Your task to perform on an android device: open sync settings in chrome Image 0: 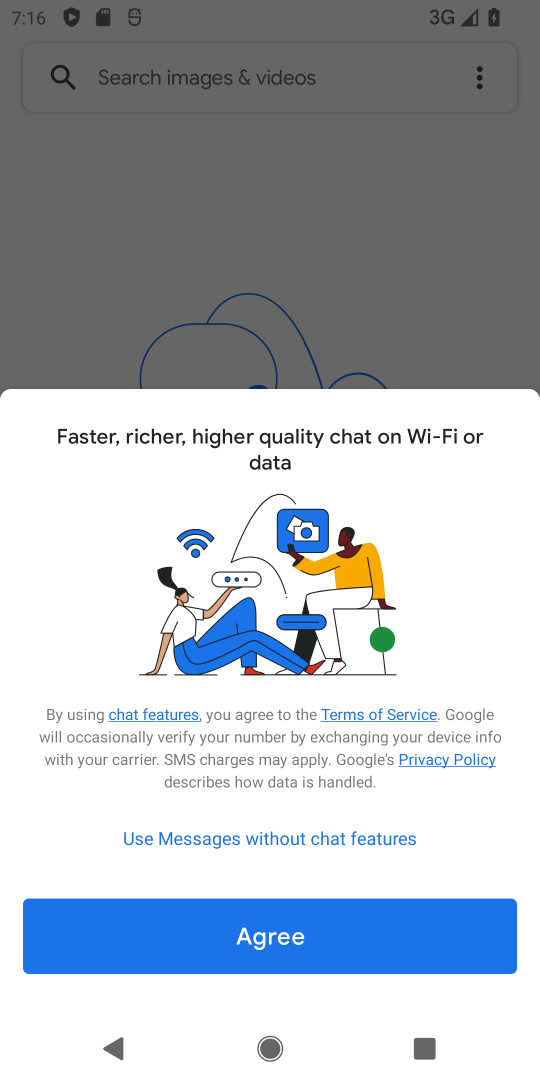
Step 0: press back button
Your task to perform on an android device: open sync settings in chrome Image 1: 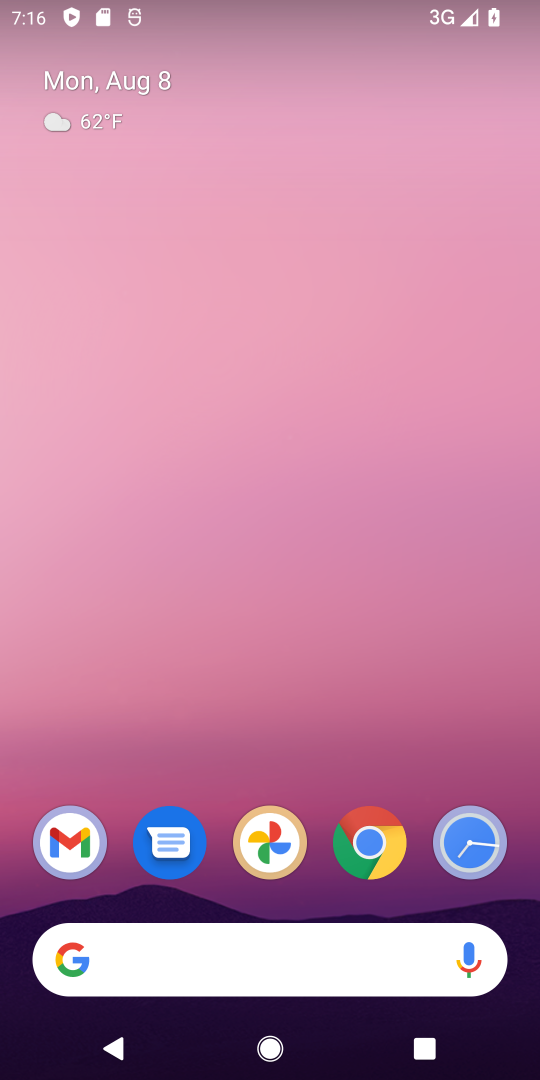
Step 1: click (393, 838)
Your task to perform on an android device: open sync settings in chrome Image 2: 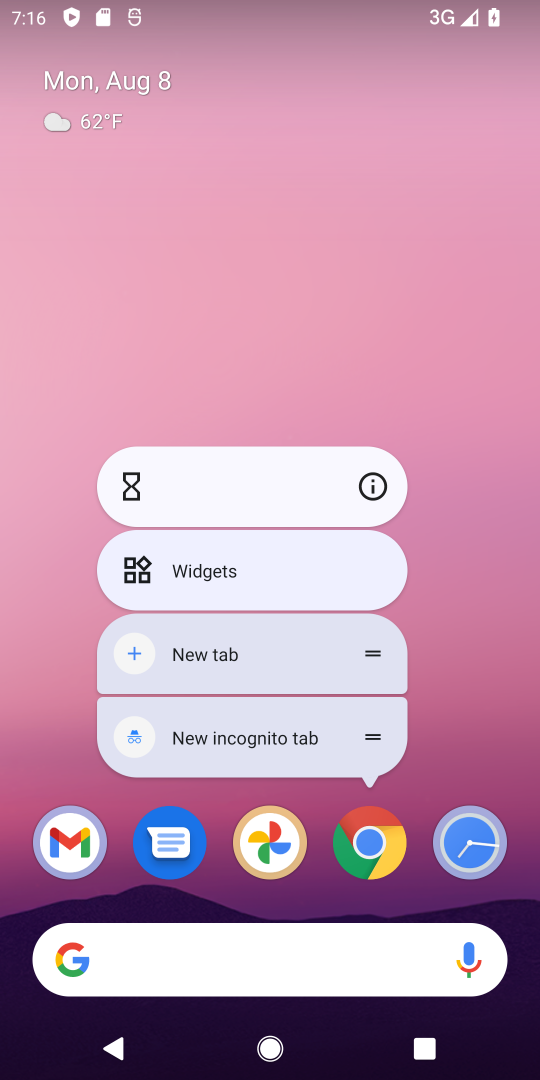
Step 2: click (384, 847)
Your task to perform on an android device: open sync settings in chrome Image 3: 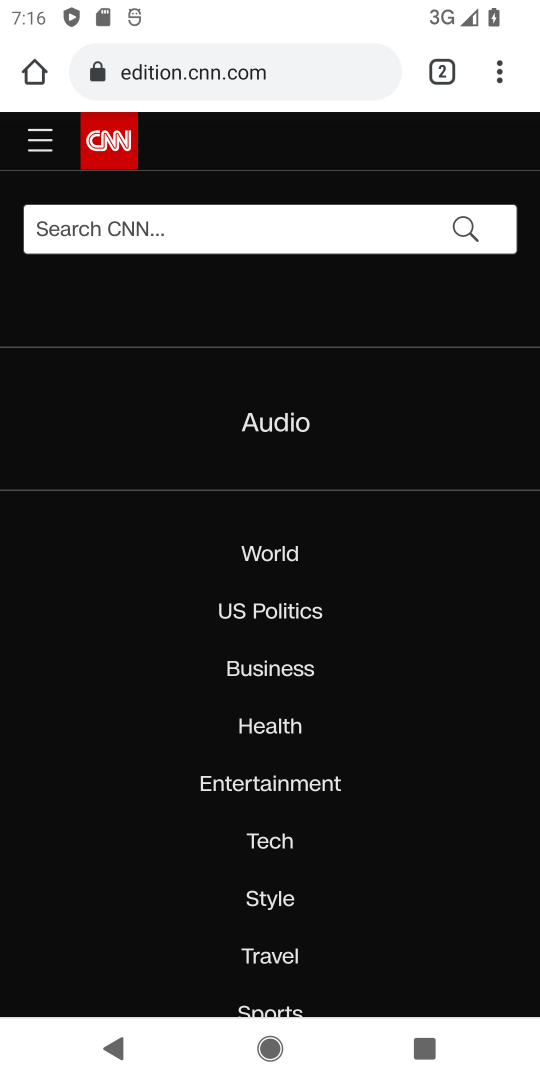
Step 3: click (486, 66)
Your task to perform on an android device: open sync settings in chrome Image 4: 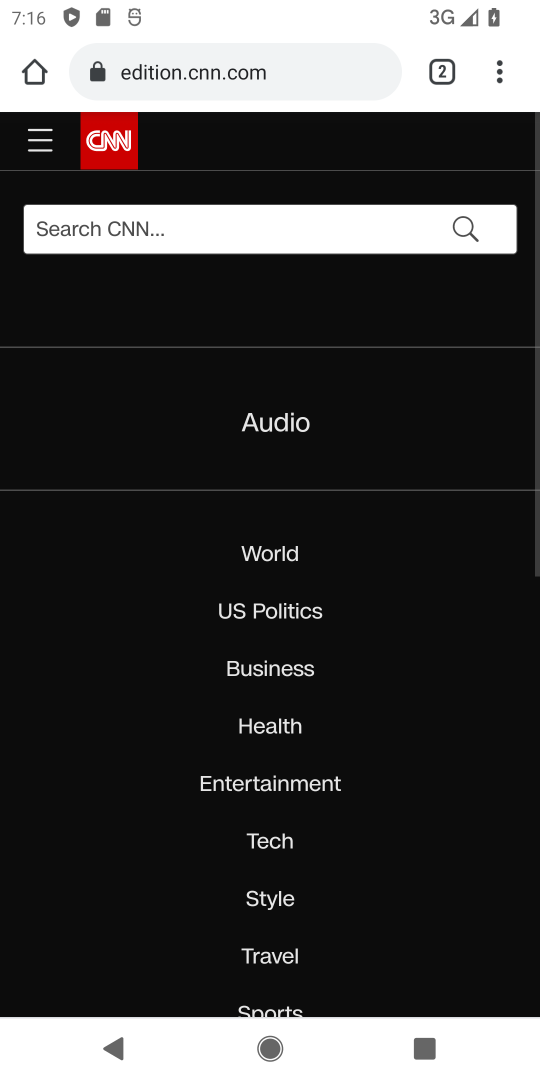
Step 4: drag from (469, 70) to (451, 331)
Your task to perform on an android device: open sync settings in chrome Image 5: 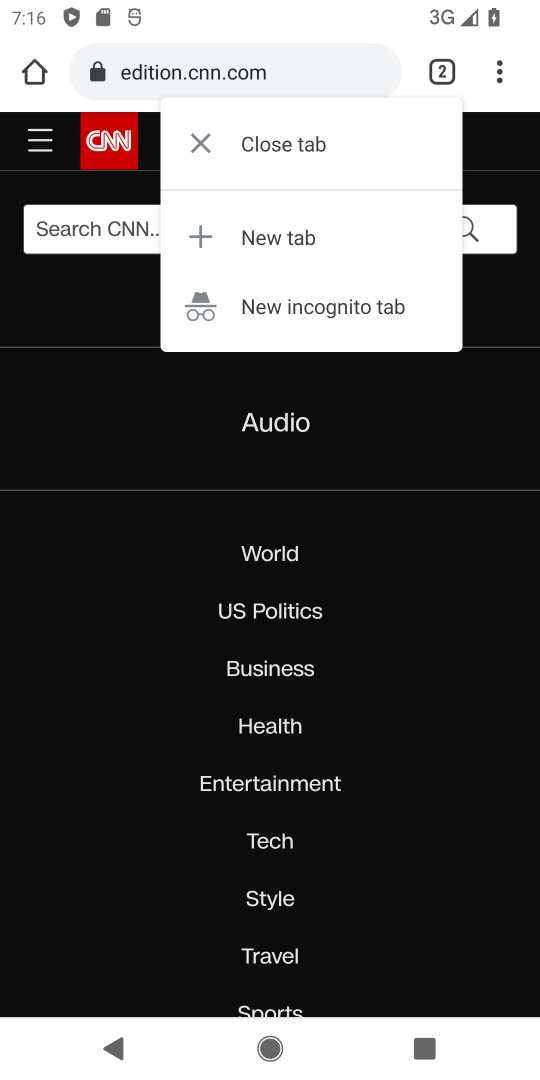
Step 5: click (476, 363)
Your task to perform on an android device: open sync settings in chrome Image 6: 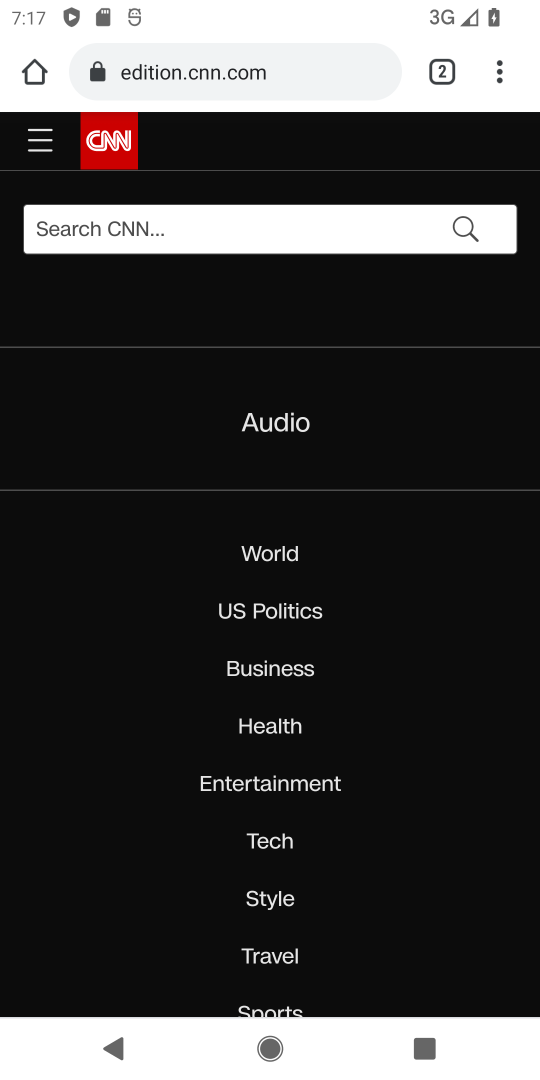
Step 6: drag from (483, 108) to (308, 850)
Your task to perform on an android device: open sync settings in chrome Image 7: 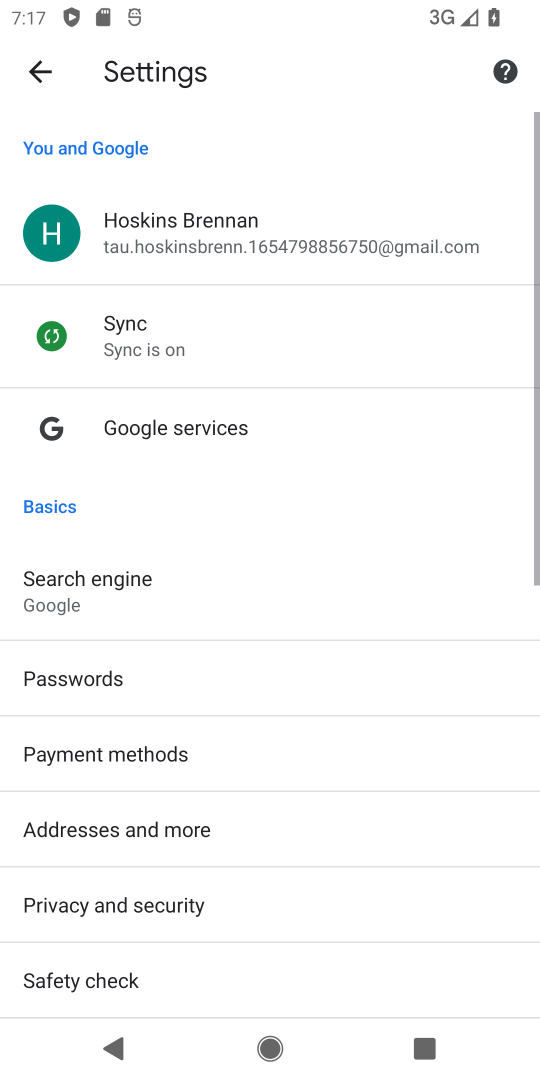
Step 7: click (29, 263)
Your task to perform on an android device: open sync settings in chrome Image 8: 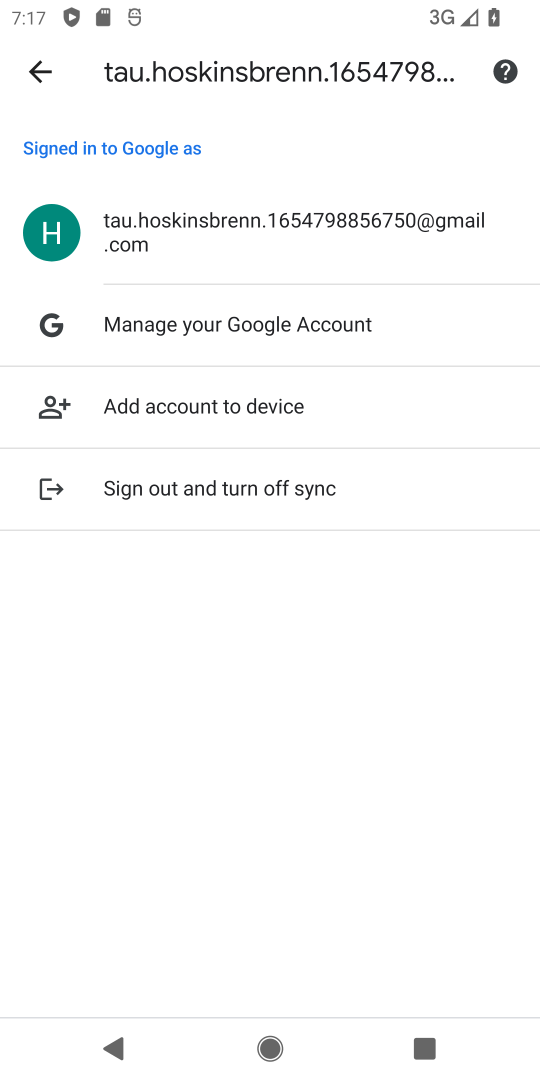
Step 8: task complete